Your task to perform on an android device: Open calendar and show me the third week of next month Image 0: 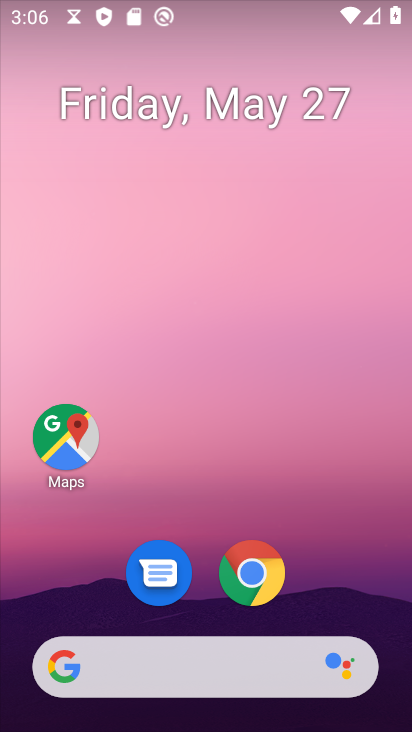
Step 0: drag from (307, 532) to (336, 64)
Your task to perform on an android device: Open calendar and show me the third week of next month Image 1: 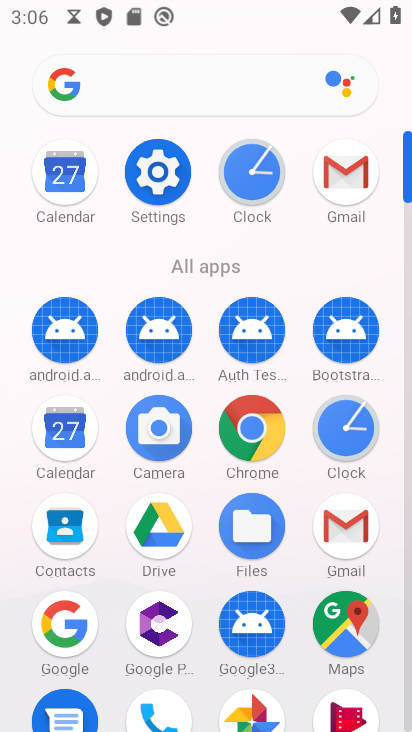
Step 1: click (67, 417)
Your task to perform on an android device: Open calendar and show me the third week of next month Image 2: 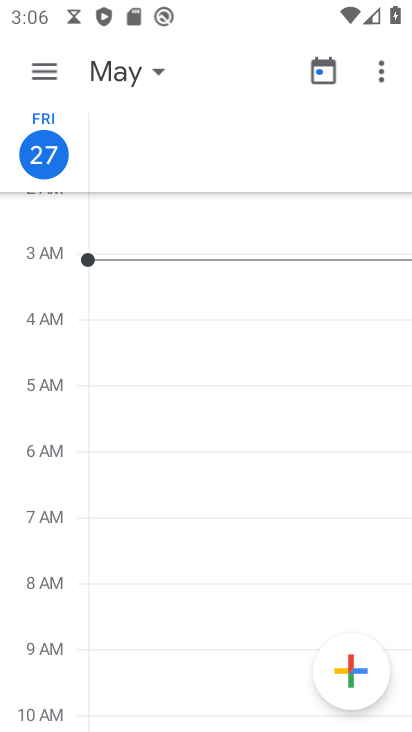
Step 2: click (133, 65)
Your task to perform on an android device: Open calendar and show me the third week of next month Image 3: 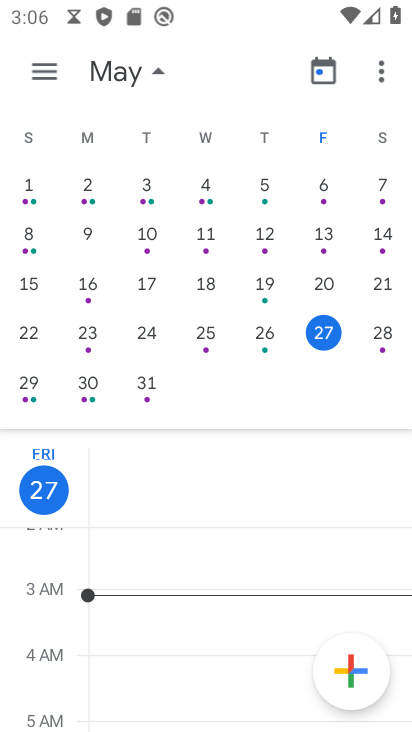
Step 3: drag from (390, 302) to (17, 289)
Your task to perform on an android device: Open calendar and show me the third week of next month Image 4: 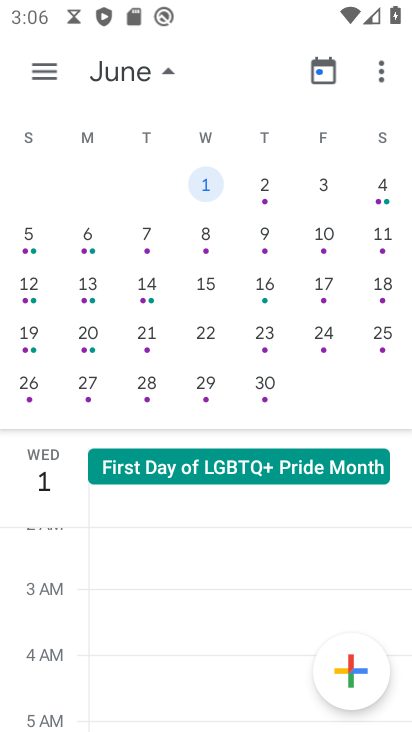
Step 4: click (41, 280)
Your task to perform on an android device: Open calendar and show me the third week of next month Image 5: 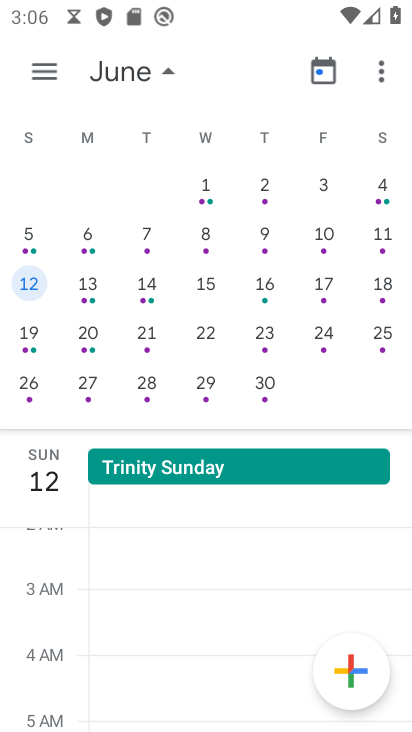
Step 5: task complete